Your task to perform on an android device: Go to accessibility settings Image 0: 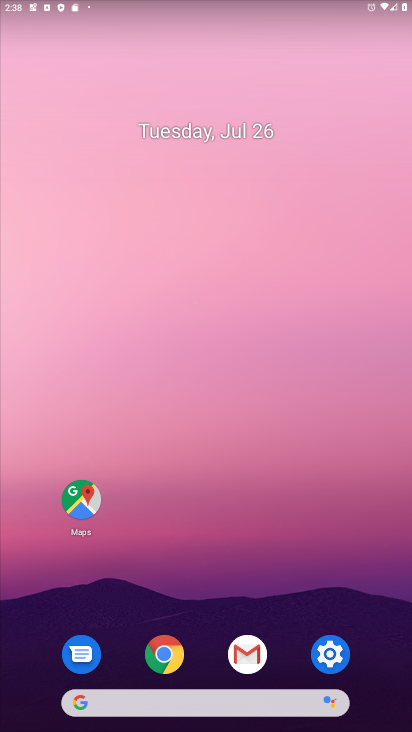
Step 0: click (326, 656)
Your task to perform on an android device: Go to accessibility settings Image 1: 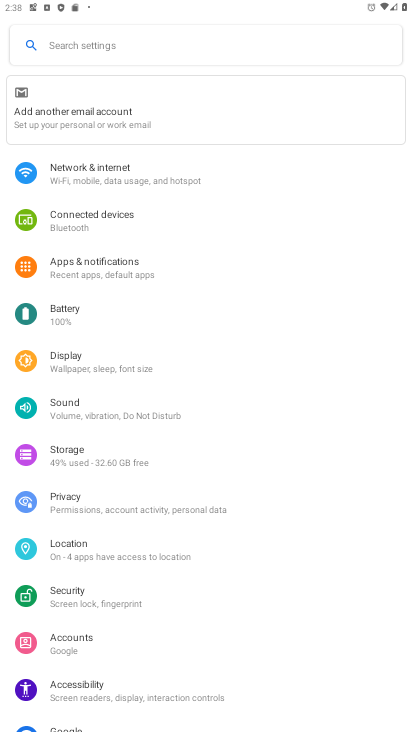
Step 1: click (89, 42)
Your task to perform on an android device: Go to accessibility settings Image 2: 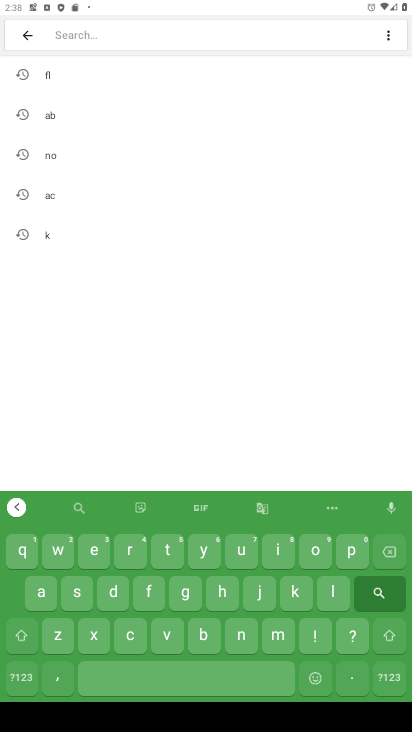
Step 2: click (37, 596)
Your task to perform on an android device: Go to accessibility settings Image 3: 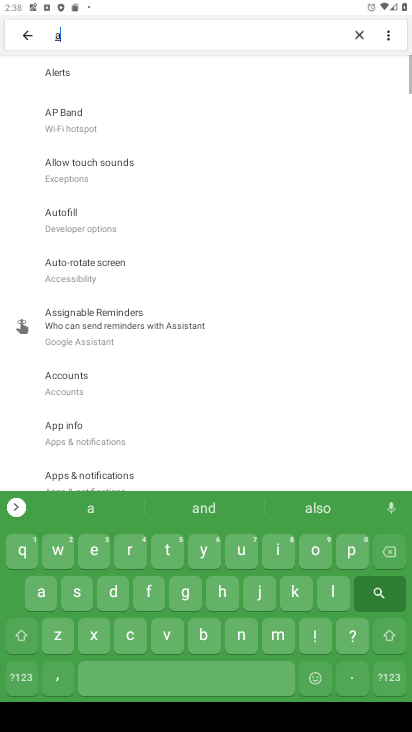
Step 3: click (131, 634)
Your task to perform on an android device: Go to accessibility settings Image 4: 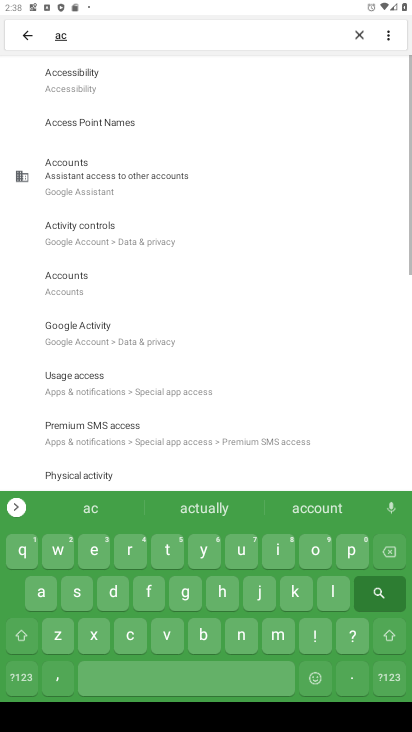
Step 4: click (95, 89)
Your task to perform on an android device: Go to accessibility settings Image 5: 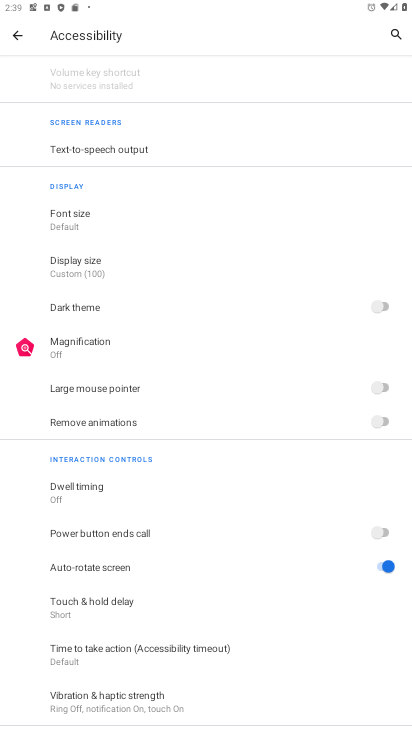
Step 5: task complete